Your task to perform on an android device: Open the web browser Image 0: 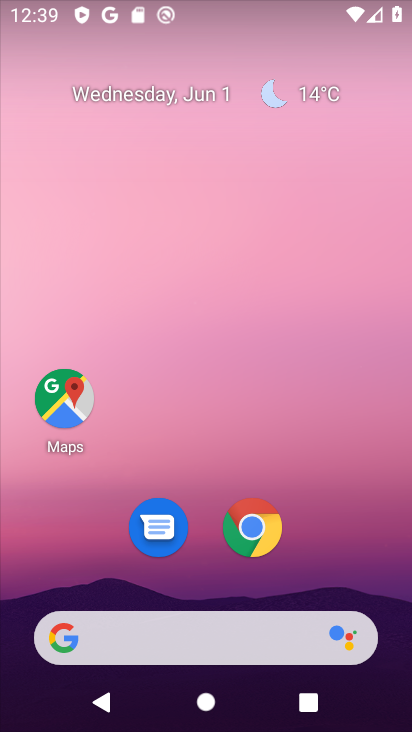
Step 0: drag from (192, 665) to (232, 257)
Your task to perform on an android device: Open the web browser Image 1: 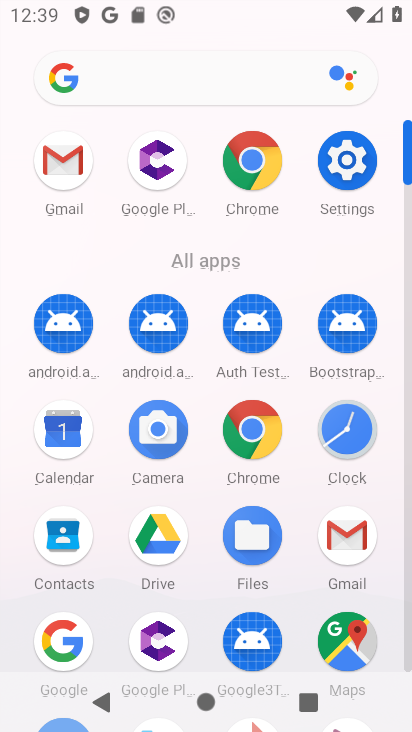
Step 1: click (247, 196)
Your task to perform on an android device: Open the web browser Image 2: 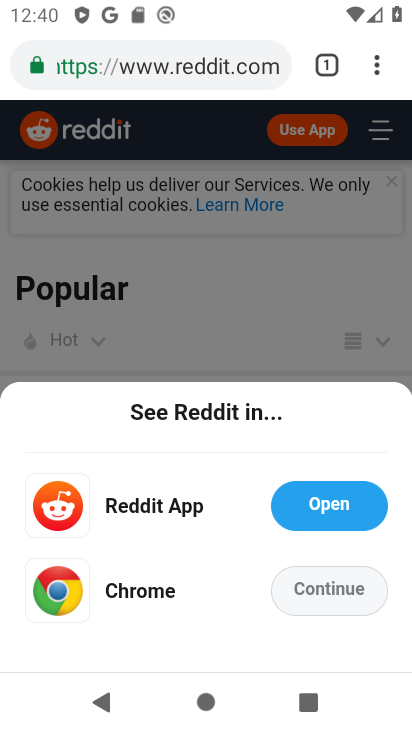
Step 2: task complete